Your task to perform on an android device: check android version Image 0: 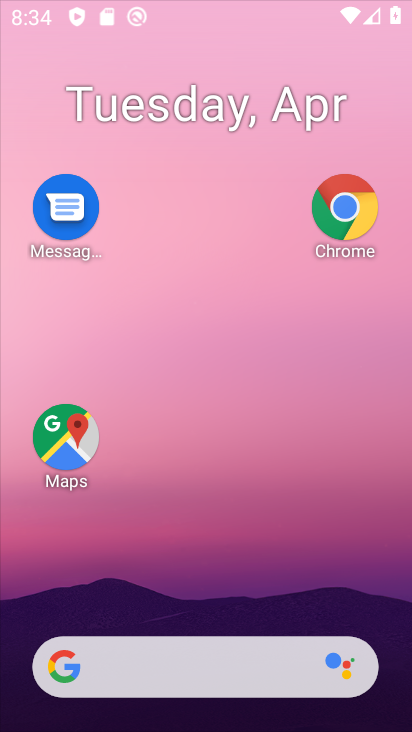
Step 0: drag from (211, 12) to (337, 8)
Your task to perform on an android device: check android version Image 1: 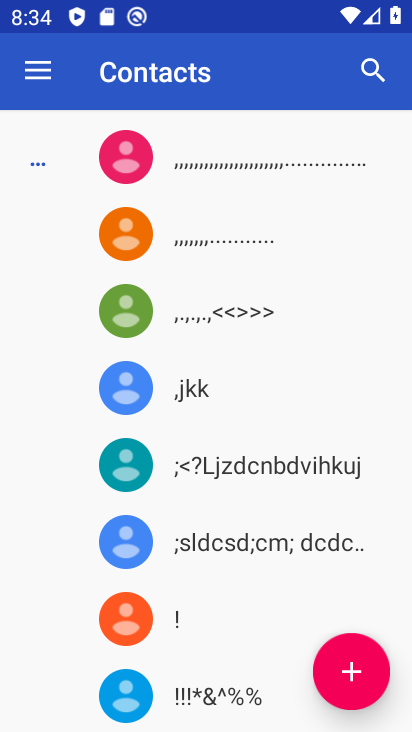
Step 1: press home button
Your task to perform on an android device: check android version Image 2: 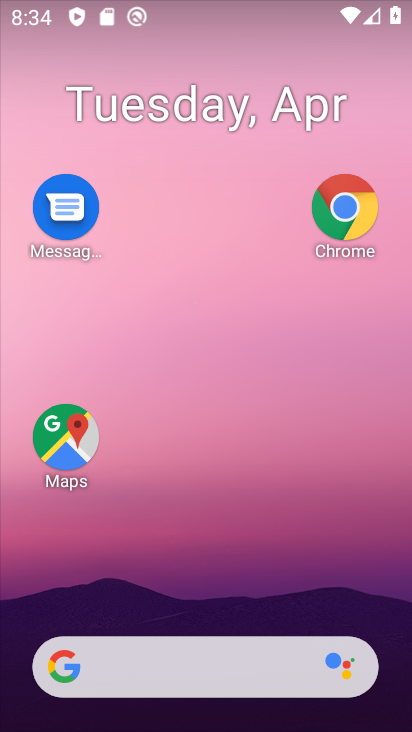
Step 2: drag from (211, 614) to (239, 49)
Your task to perform on an android device: check android version Image 3: 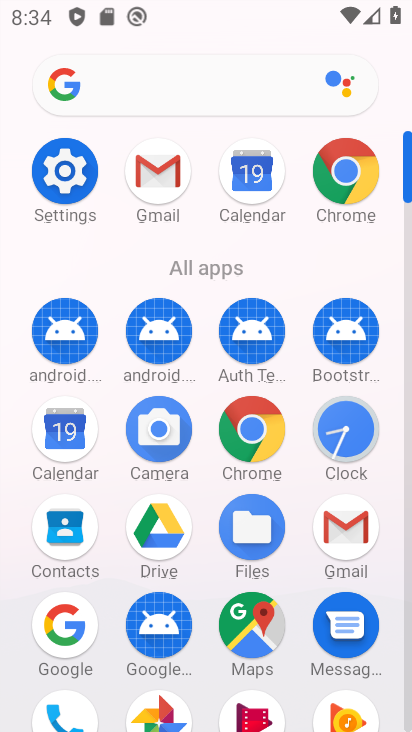
Step 3: click (58, 175)
Your task to perform on an android device: check android version Image 4: 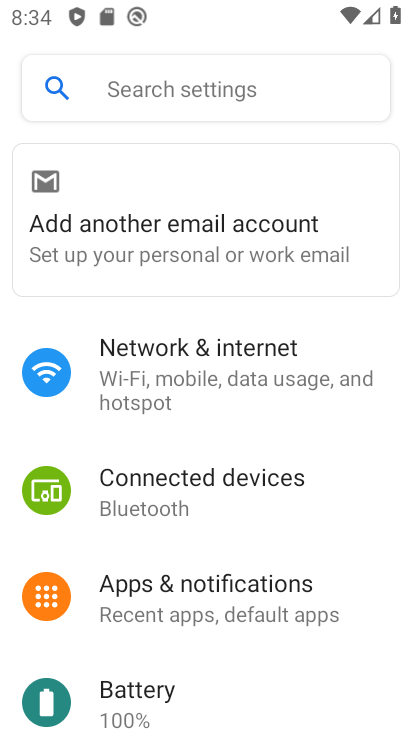
Step 4: drag from (121, 600) to (66, 4)
Your task to perform on an android device: check android version Image 5: 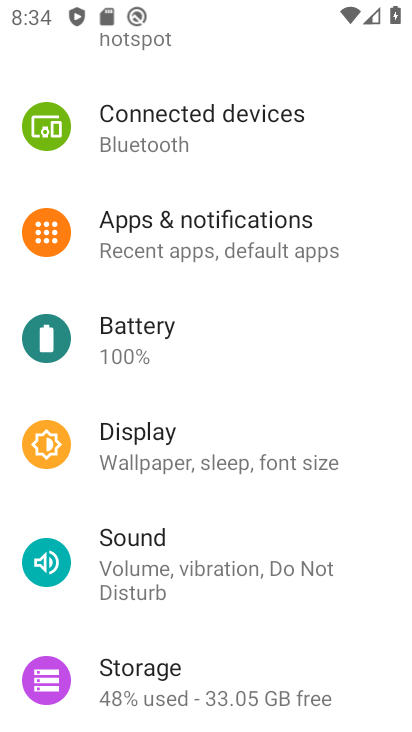
Step 5: drag from (191, 590) to (204, 4)
Your task to perform on an android device: check android version Image 6: 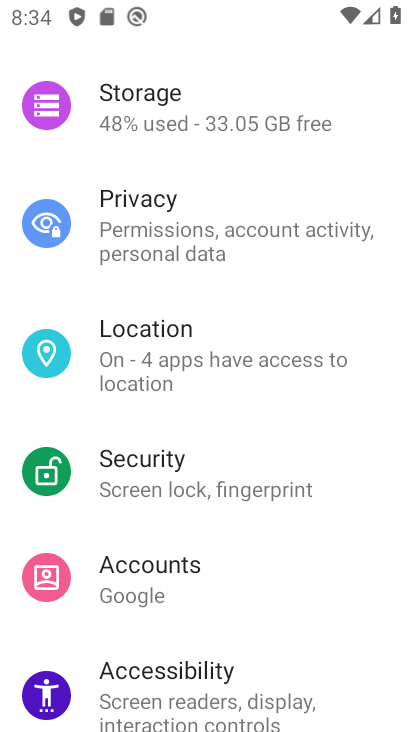
Step 6: drag from (217, 475) to (178, 10)
Your task to perform on an android device: check android version Image 7: 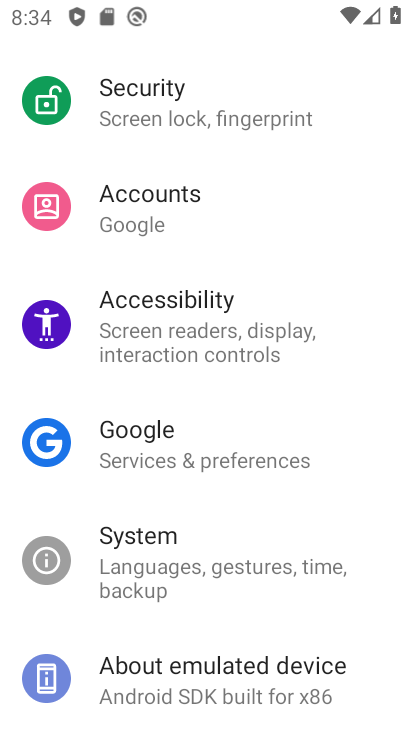
Step 7: drag from (217, 552) to (160, 140)
Your task to perform on an android device: check android version Image 8: 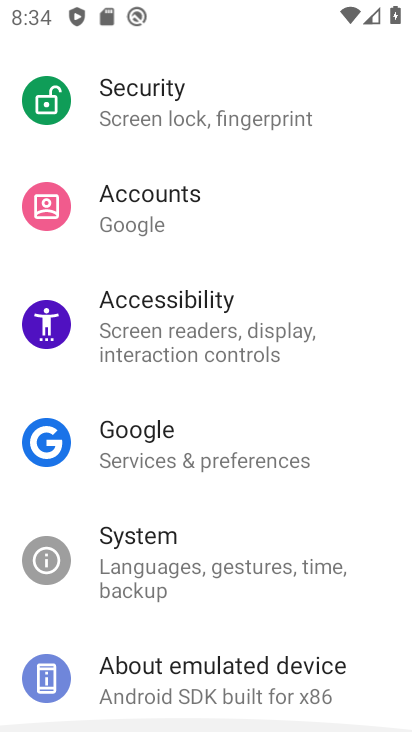
Step 8: click (164, 685)
Your task to perform on an android device: check android version Image 9: 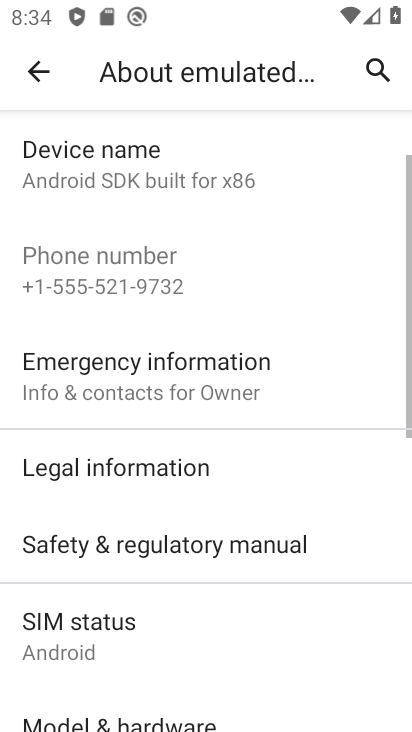
Step 9: drag from (147, 638) to (117, 173)
Your task to perform on an android device: check android version Image 10: 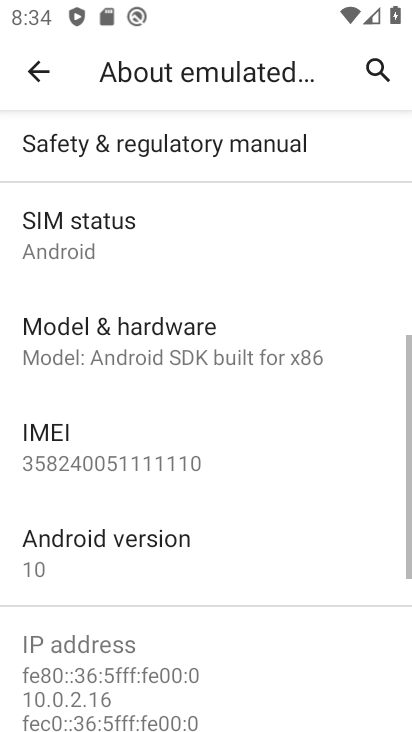
Step 10: click (94, 576)
Your task to perform on an android device: check android version Image 11: 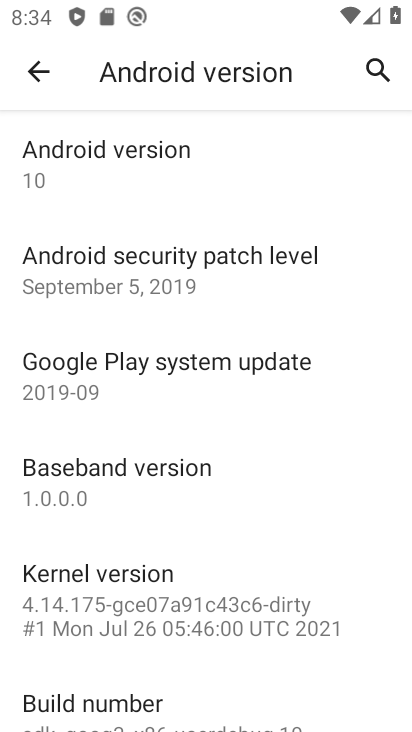
Step 11: task complete